Your task to perform on an android device: turn on showing notifications on the lock screen Image 0: 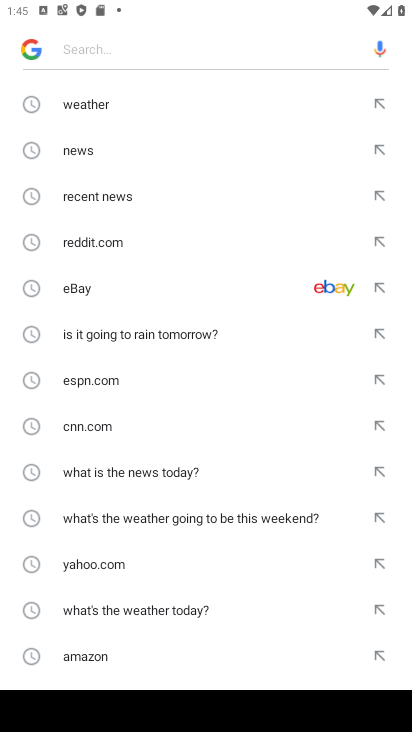
Step 0: press home button
Your task to perform on an android device: turn on showing notifications on the lock screen Image 1: 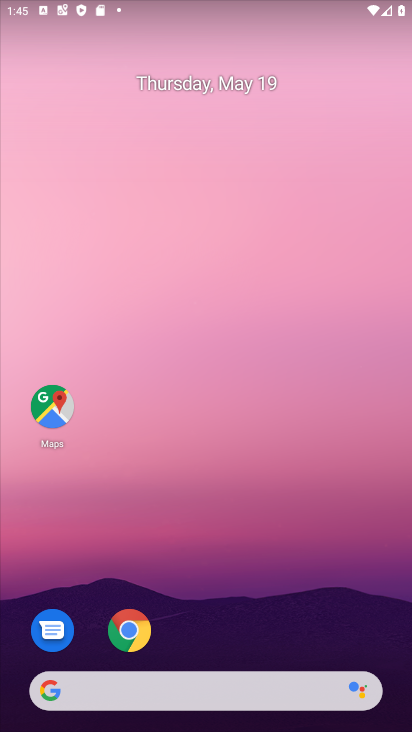
Step 1: drag from (390, 655) to (311, 84)
Your task to perform on an android device: turn on showing notifications on the lock screen Image 2: 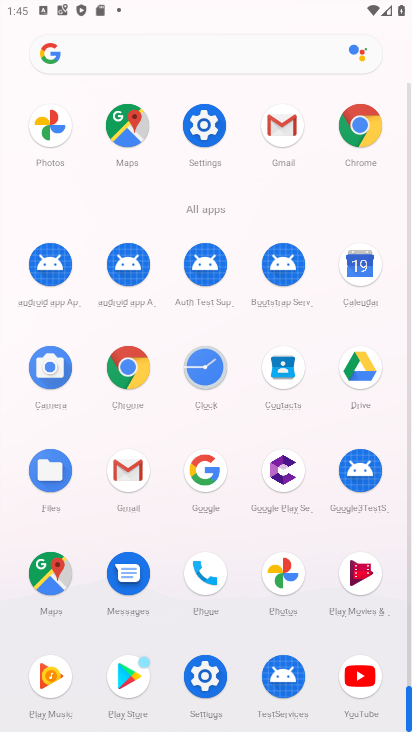
Step 2: click (204, 678)
Your task to perform on an android device: turn on showing notifications on the lock screen Image 3: 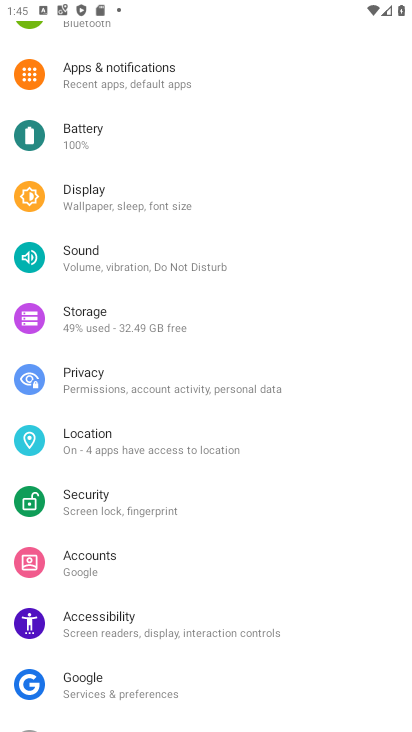
Step 3: click (123, 72)
Your task to perform on an android device: turn on showing notifications on the lock screen Image 4: 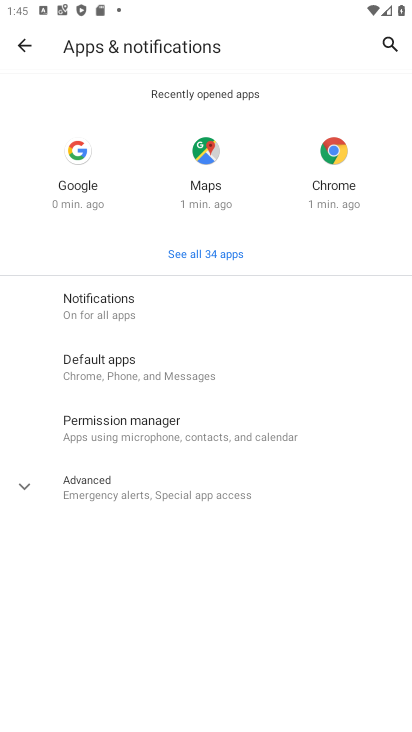
Step 4: click (104, 303)
Your task to perform on an android device: turn on showing notifications on the lock screen Image 5: 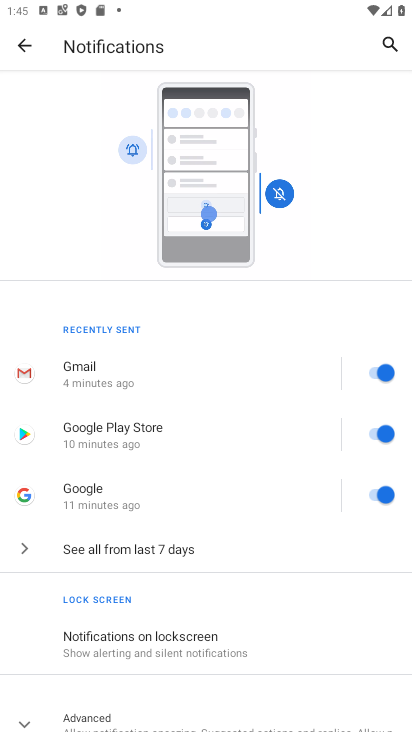
Step 5: click (156, 630)
Your task to perform on an android device: turn on showing notifications on the lock screen Image 6: 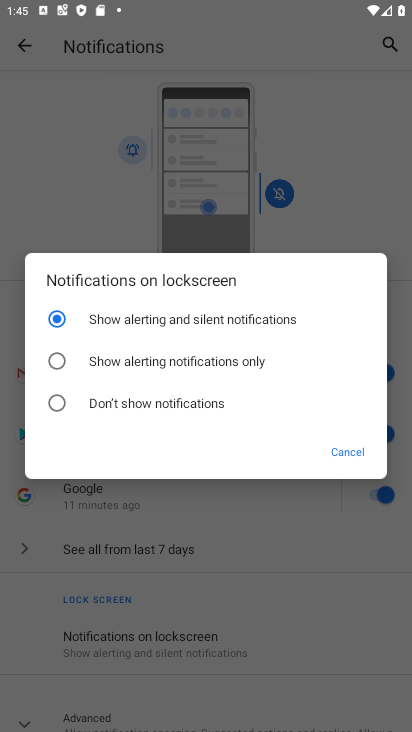
Step 6: task complete